Your task to perform on an android device: all mails in gmail Image 0: 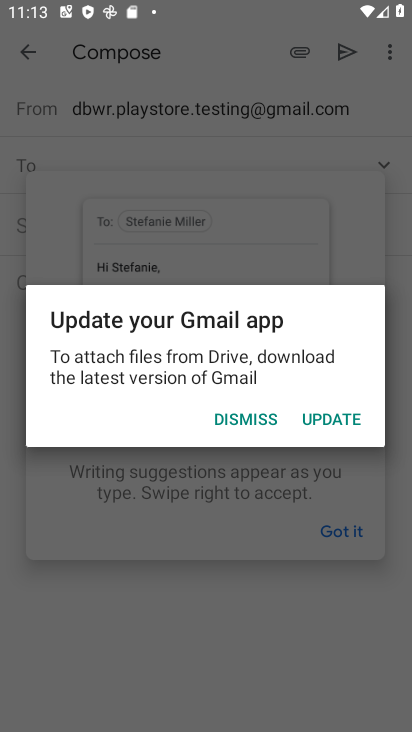
Step 0: press home button
Your task to perform on an android device: all mails in gmail Image 1: 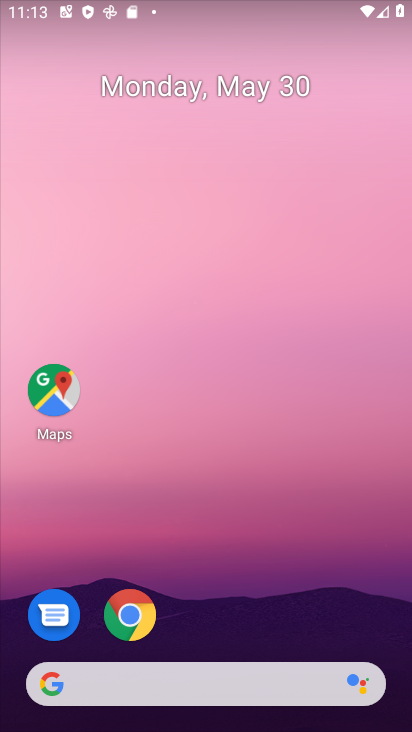
Step 1: drag from (296, 458) to (289, 6)
Your task to perform on an android device: all mails in gmail Image 2: 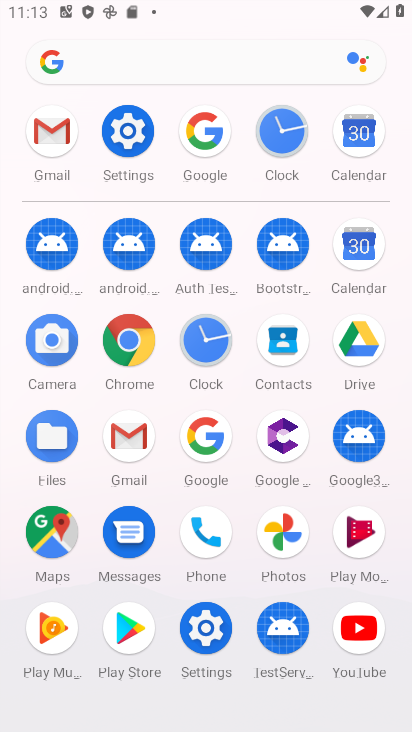
Step 2: click (52, 141)
Your task to perform on an android device: all mails in gmail Image 3: 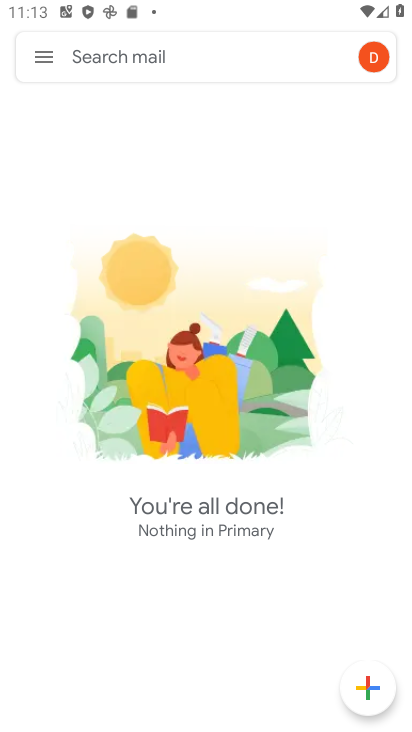
Step 3: click (42, 50)
Your task to perform on an android device: all mails in gmail Image 4: 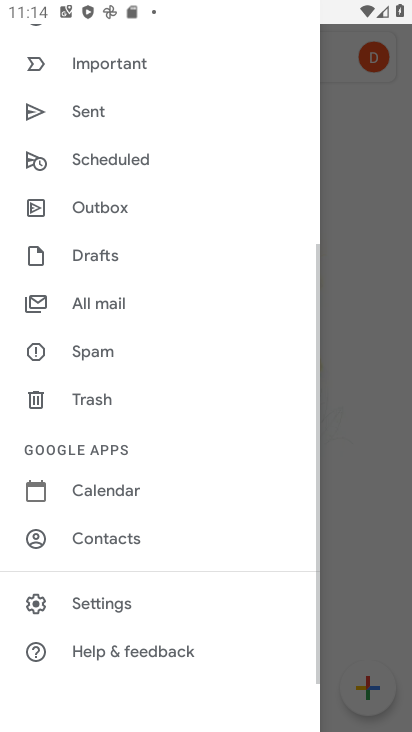
Step 4: click (123, 305)
Your task to perform on an android device: all mails in gmail Image 5: 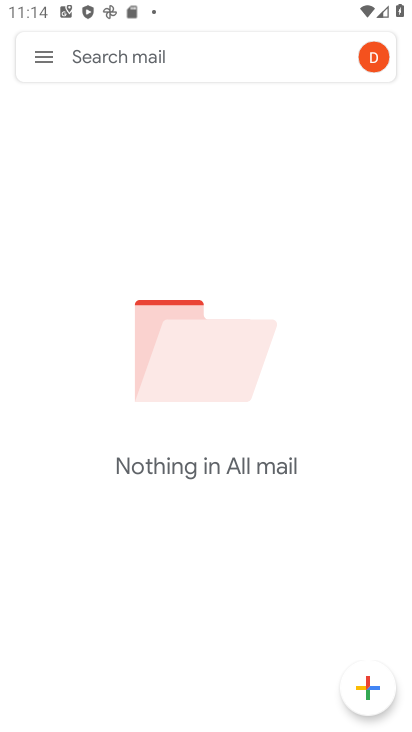
Step 5: task complete